Your task to perform on an android device: toggle notification dots Image 0: 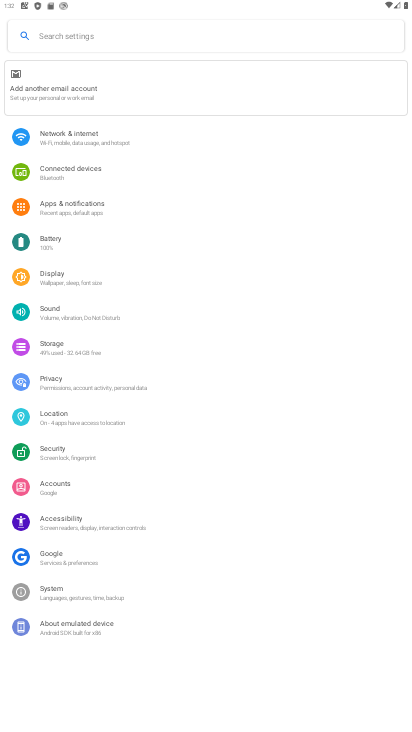
Step 0: click (72, 202)
Your task to perform on an android device: toggle notification dots Image 1: 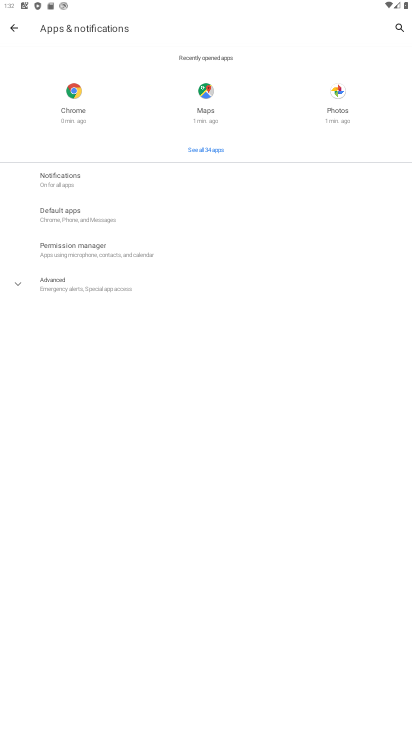
Step 1: click (61, 180)
Your task to perform on an android device: toggle notification dots Image 2: 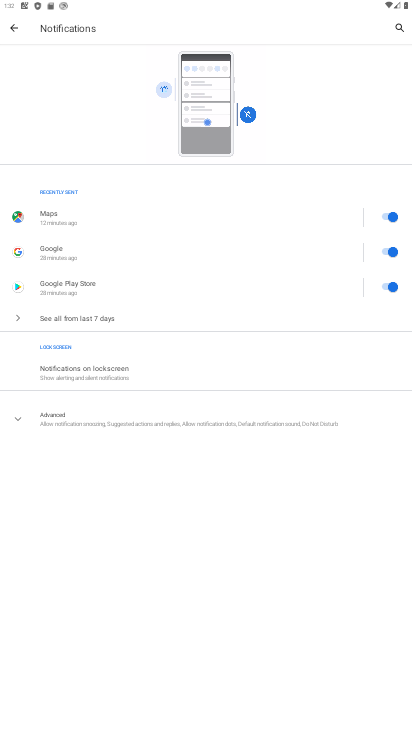
Step 2: click (21, 415)
Your task to perform on an android device: toggle notification dots Image 3: 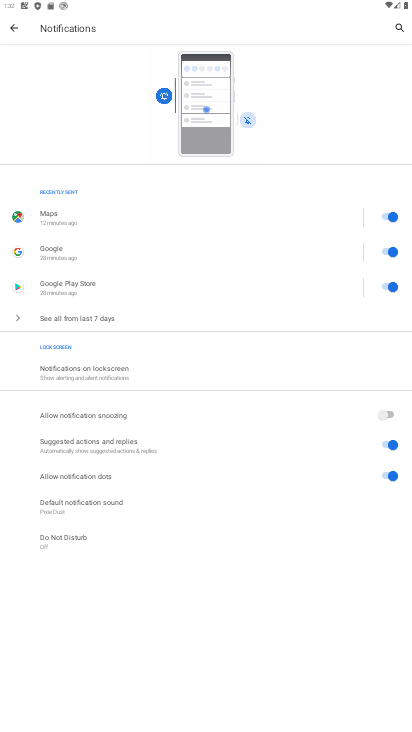
Step 3: click (385, 471)
Your task to perform on an android device: toggle notification dots Image 4: 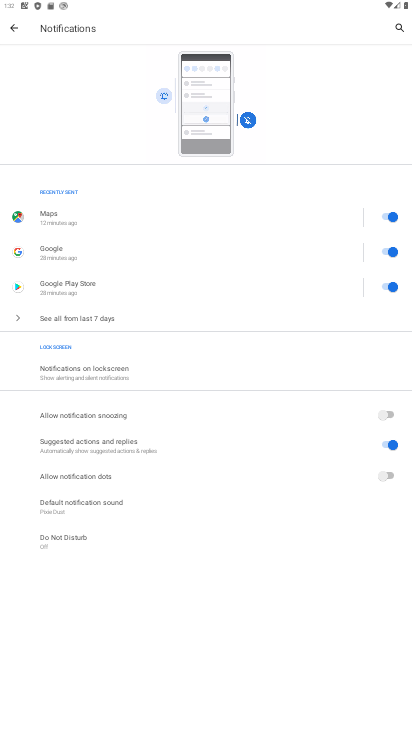
Step 4: task complete